Your task to perform on an android device: turn on notifications settings in the gmail app Image 0: 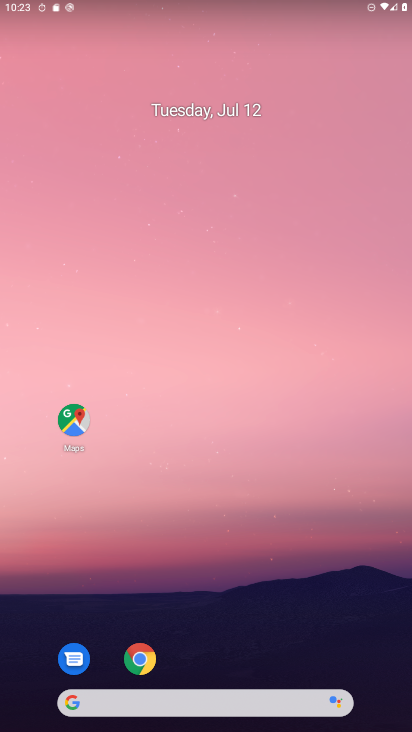
Step 0: drag from (237, 726) to (202, 55)
Your task to perform on an android device: turn on notifications settings in the gmail app Image 1: 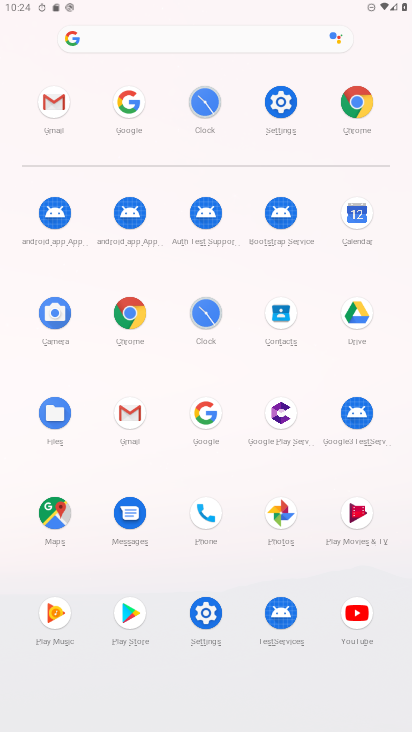
Step 1: click (129, 415)
Your task to perform on an android device: turn on notifications settings in the gmail app Image 2: 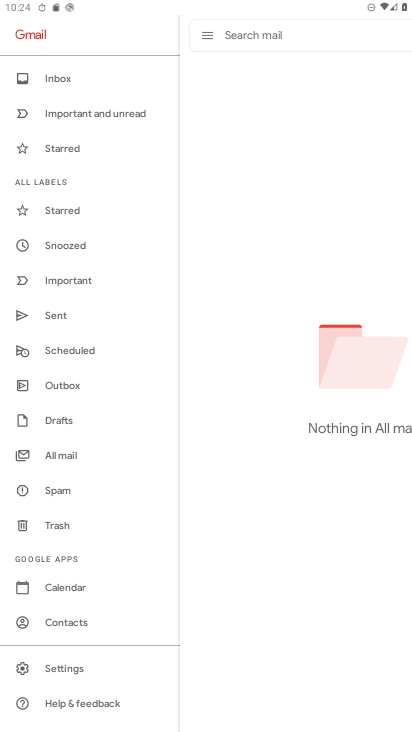
Step 2: click (54, 671)
Your task to perform on an android device: turn on notifications settings in the gmail app Image 3: 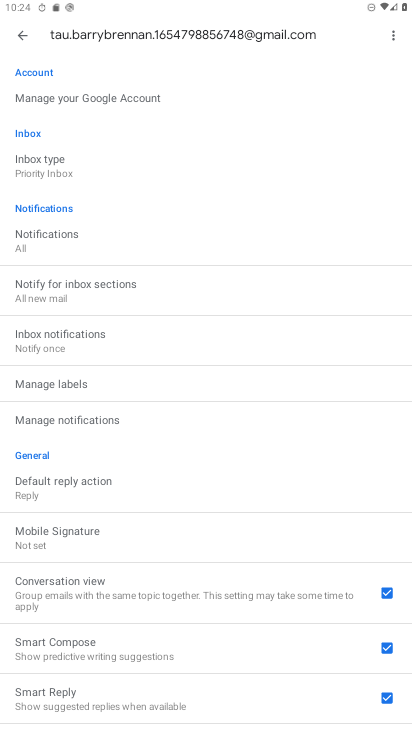
Step 3: task complete